Your task to perform on an android device: turn on bluetooth scan Image 0: 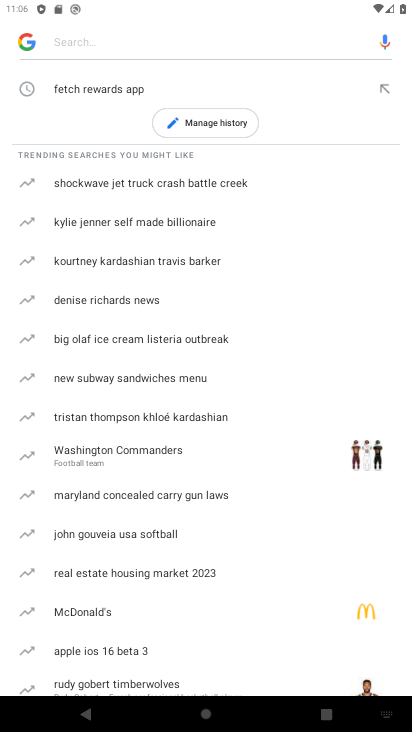
Step 0: press back button
Your task to perform on an android device: turn on bluetooth scan Image 1: 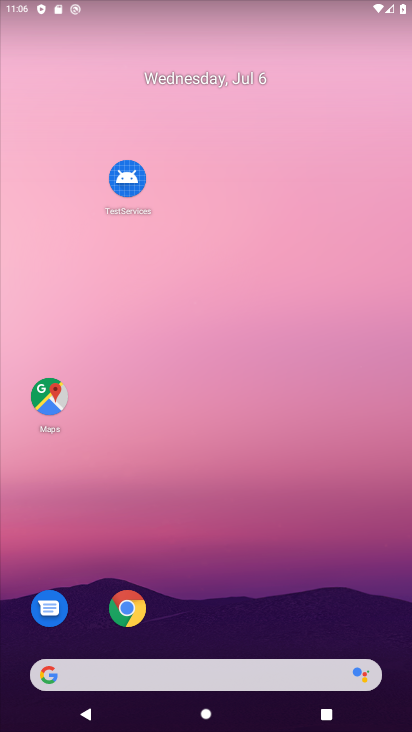
Step 1: drag from (207, 408) to (180, 253)
Your task to perform on an android device: turn on bluetooth scan Image 2: 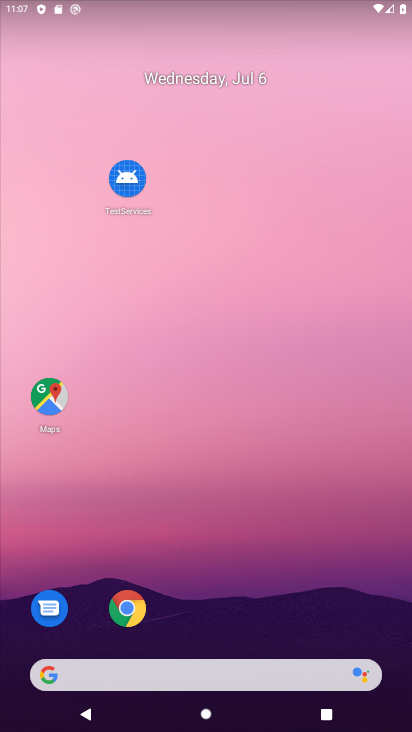
Step 2: drag from (256, 542) to (195, 71)
Your task to perform on an android device: turn on bluetooth scan Image 3: 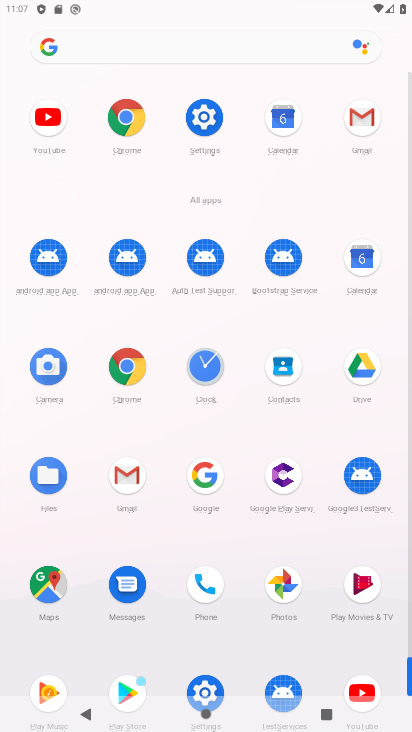
Step 3: click (205, 130)
Your task to perform on an android device: turn on bluetooth scan Image 4: 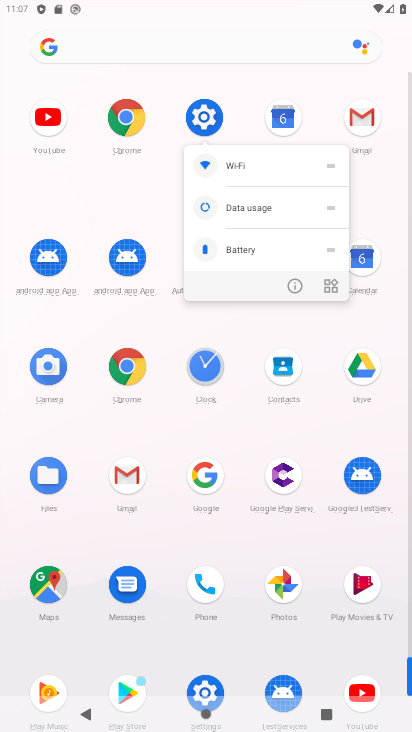
Step 4: click (204, 127)
Your task to perform on an android device: turn on bluetooth scan Image 5: 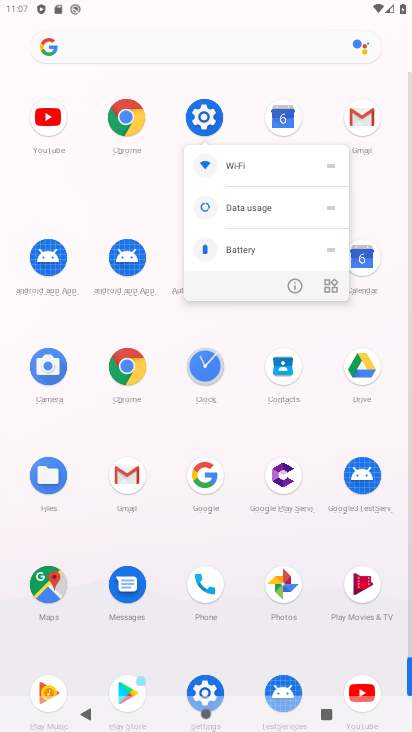
Step 5: click (202, 126)
Your task to perform on an android device: turn on bluetooth scan Image 6: 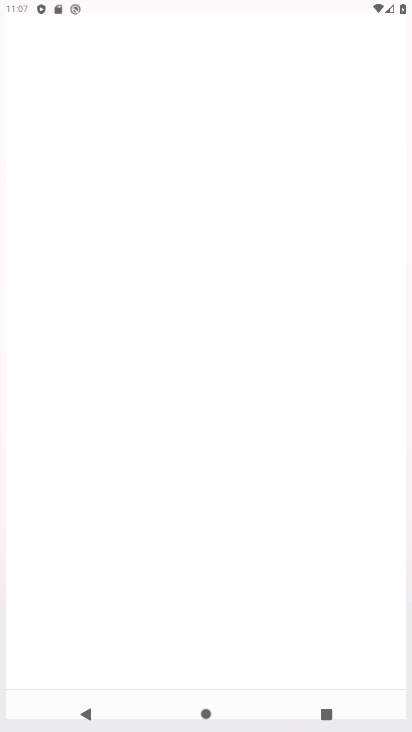
Step 6: click (202, 126)
Your task to perform on an android device: turn on bluetooth scan Image 7: 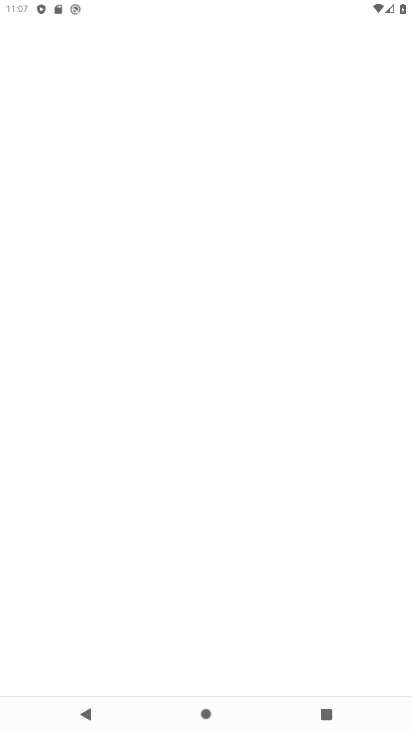
Step 7: click (202, 126)
Your task to perform on an android device: turn on bluetooth scan Image 8: 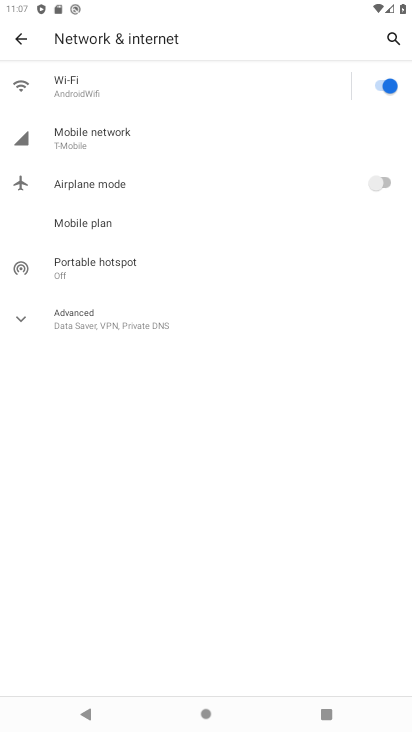
Step 8: click (13, 35)
Your task to perform on an android device: turn on bluetooth scan Image 9: 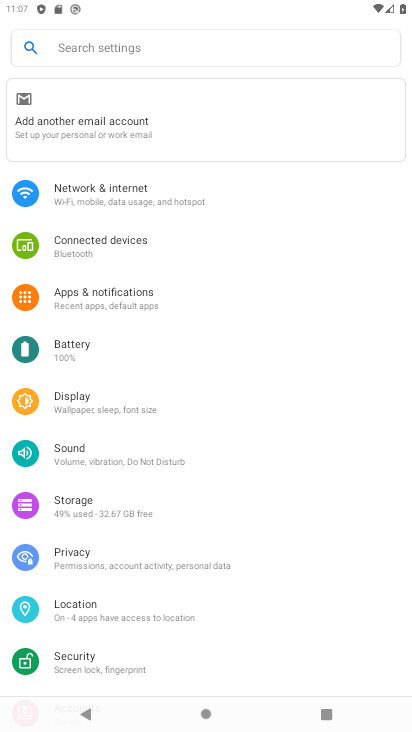
Step 9: click (92, 291)
Your task to perform on an android device: turn on bluetooth scan Image 10: 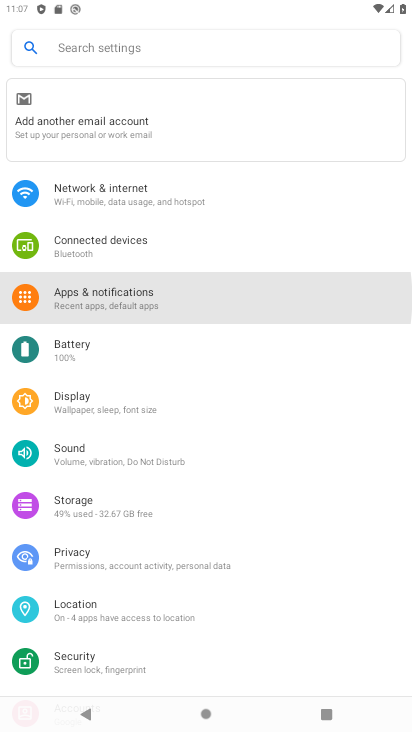
Step 10: click (93, 293)
Your task to perform on an android device: turn on bluetooth scan Image 11: 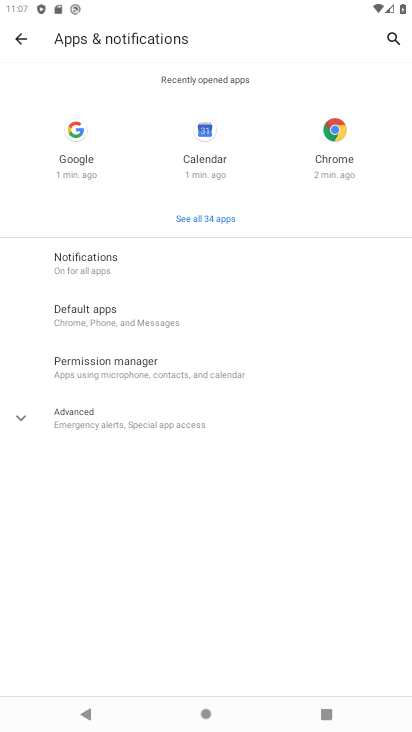
Step 11: click (93, 367)
Your task to perform on an android device: turn on bluetooth scan Image 12: 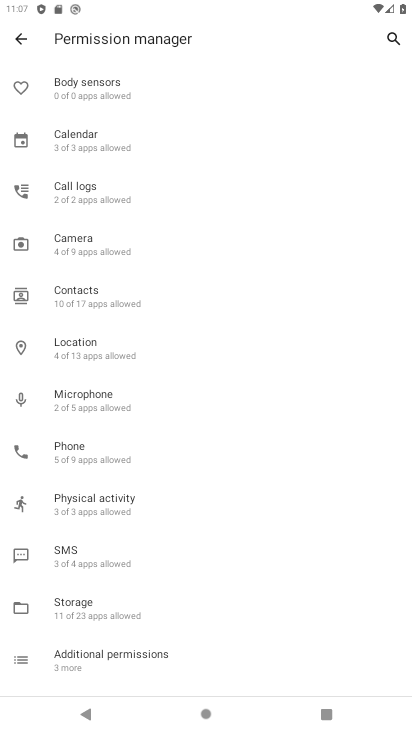
Step 12: click (19, 45)
Your task to perform on an android device: turn on bluetooth scan Image 13: 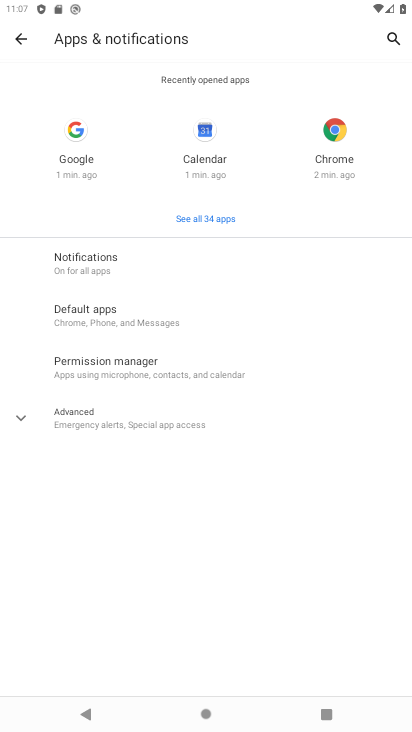
Step 13: click (25, 33)
Your task to perform on an android device: turn on bluetooth scan Image 14: 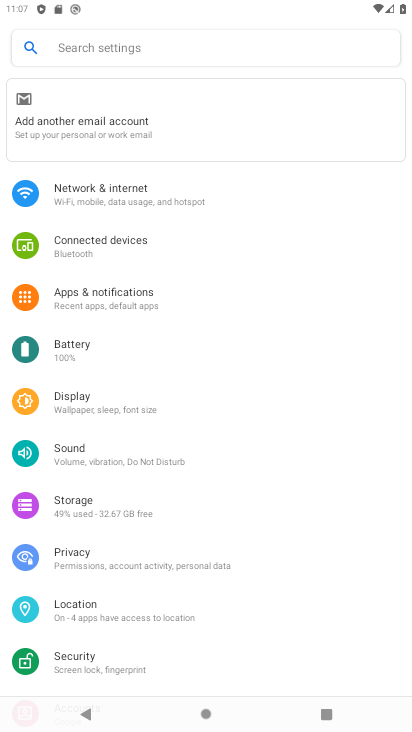
Step 14: click (76, 615)
Your task to perform on an android device: turn on bluetooth scan Image 15: 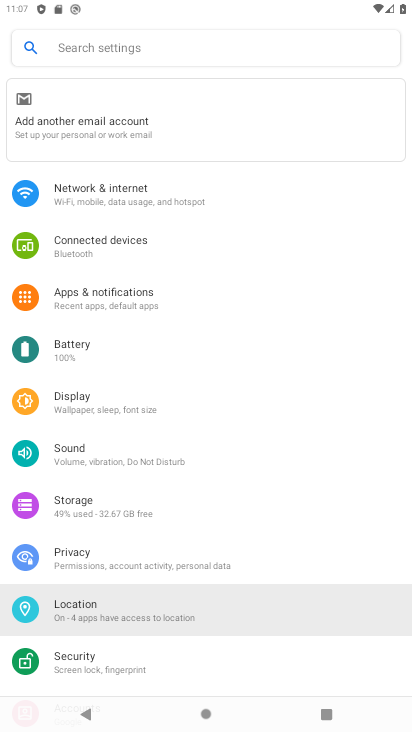
Step 15: click (76, 615)
Your task to perform on an android device: turn on bluetooth scan Image 16: 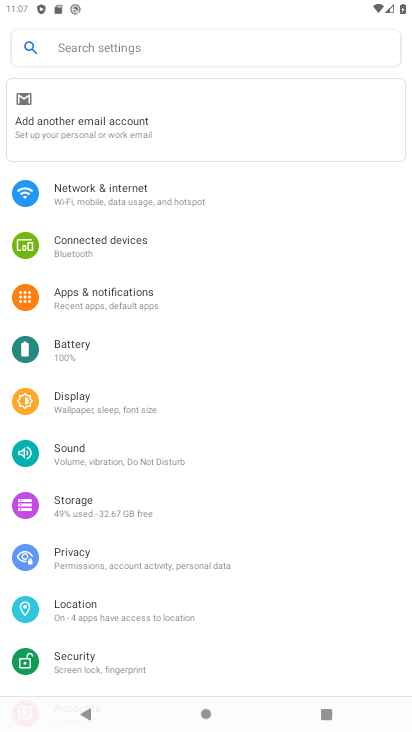
Step 16: click (77, 615)
Your task to perform on an android device: turn on bluetooth scan Image 17: 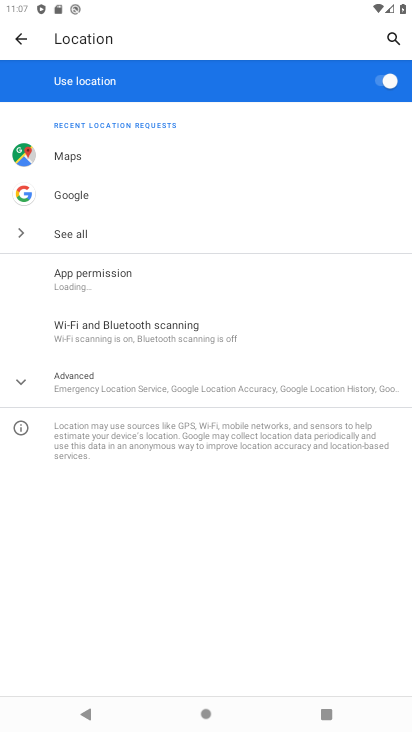
Step 17: click (117, 257)
Your task to perform on an android device: turn on bluetooth scan Image 18: 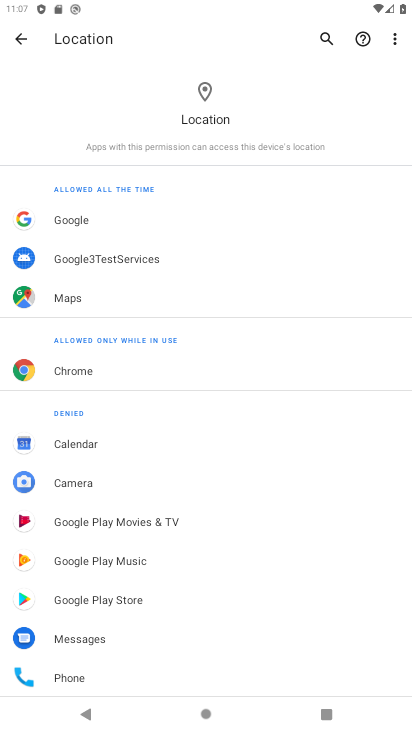
Step 18: click (16, 37)
Your task to perform on an android device: turn on bluetooth scan Image 19: 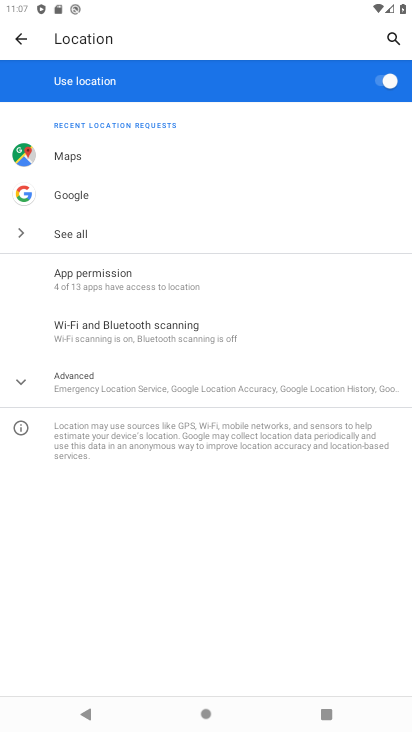
Step 19: click (102, 285)
Your task to perform on an android device: turn on bluetooth scan Image 20: 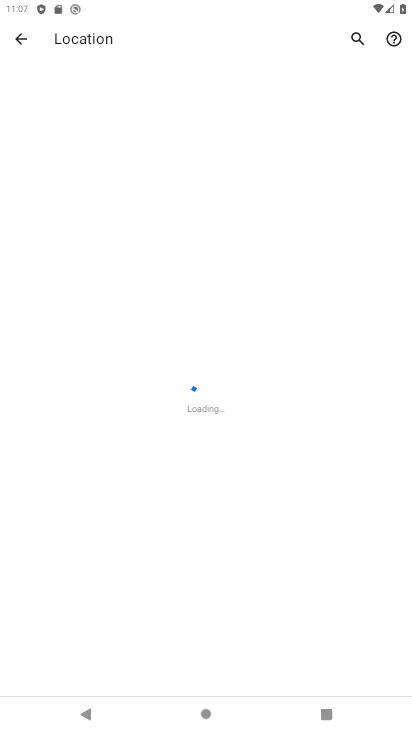
Step 20: click (12, 41)
Your task to perform on an android device: turn on bluetooth scan Image 21: 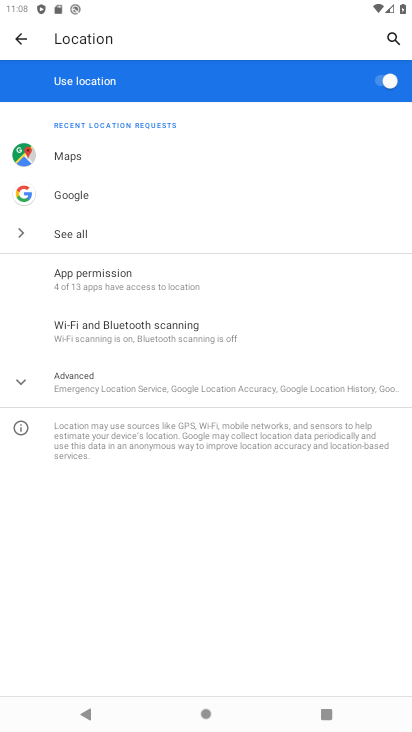
Step 21: click (122, 329)
Your task to perform on an android device: turn on bluetooth scan Image 22: 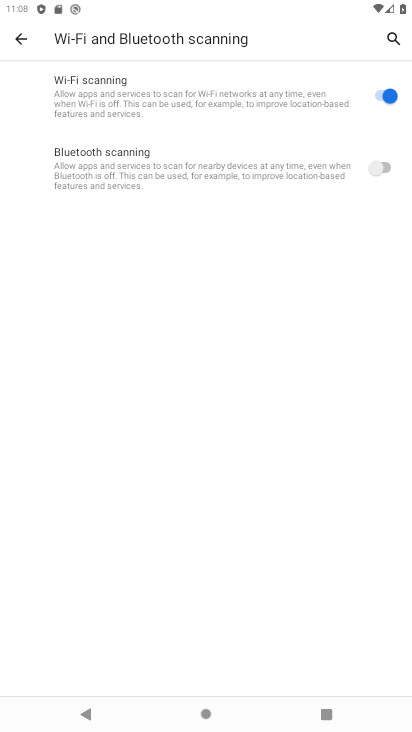
Step 22: click (366, 164)
Your task to perform on an android device: turn on bluetooth scan Image 23: 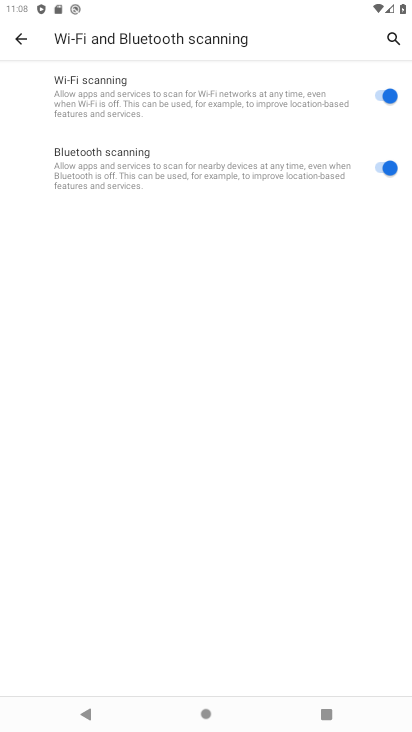
Step 23: task complete